Your task to perform on an android device: open app "DoorDash - Dasher" Image 0: 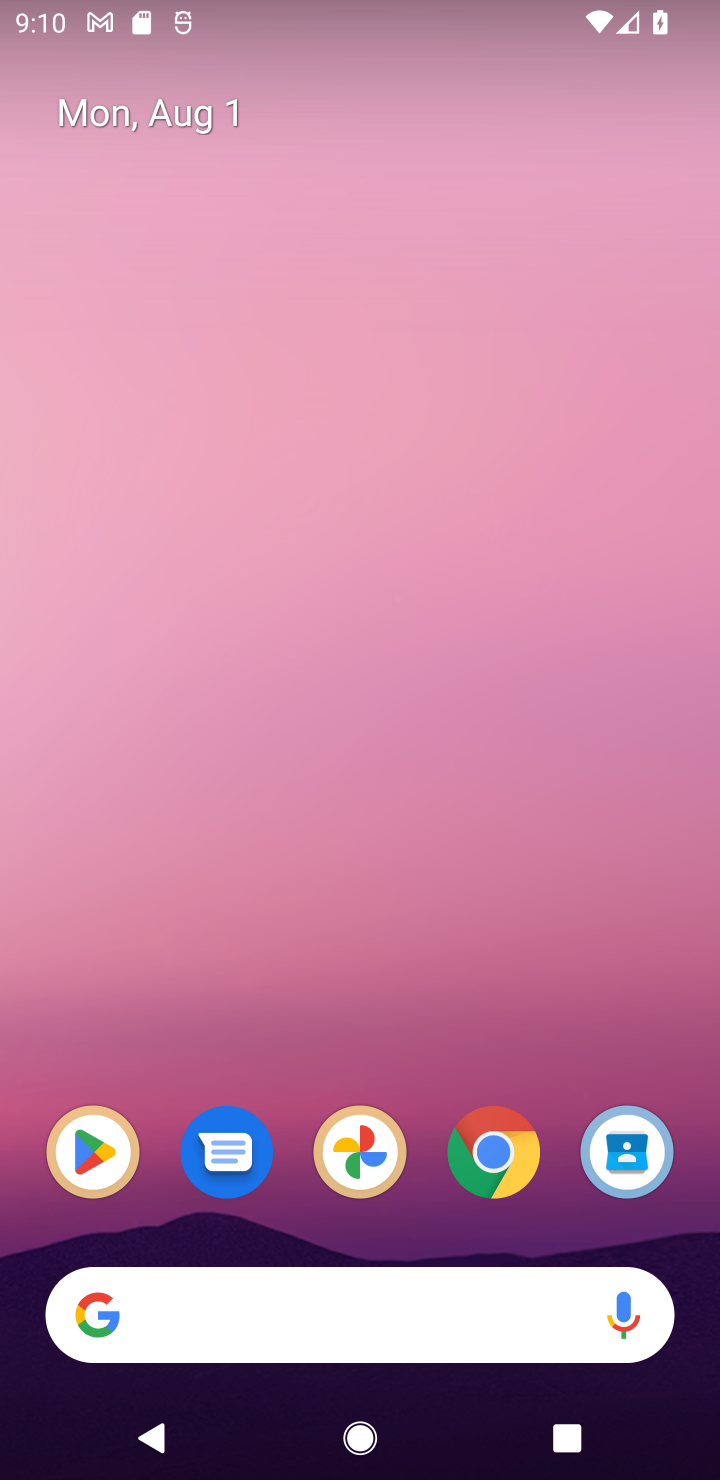
Step 0: drag from (357, 1248) to (350, 0)
Your task to perform on an android device: open app "DoorDash - Dasher" Image 1: 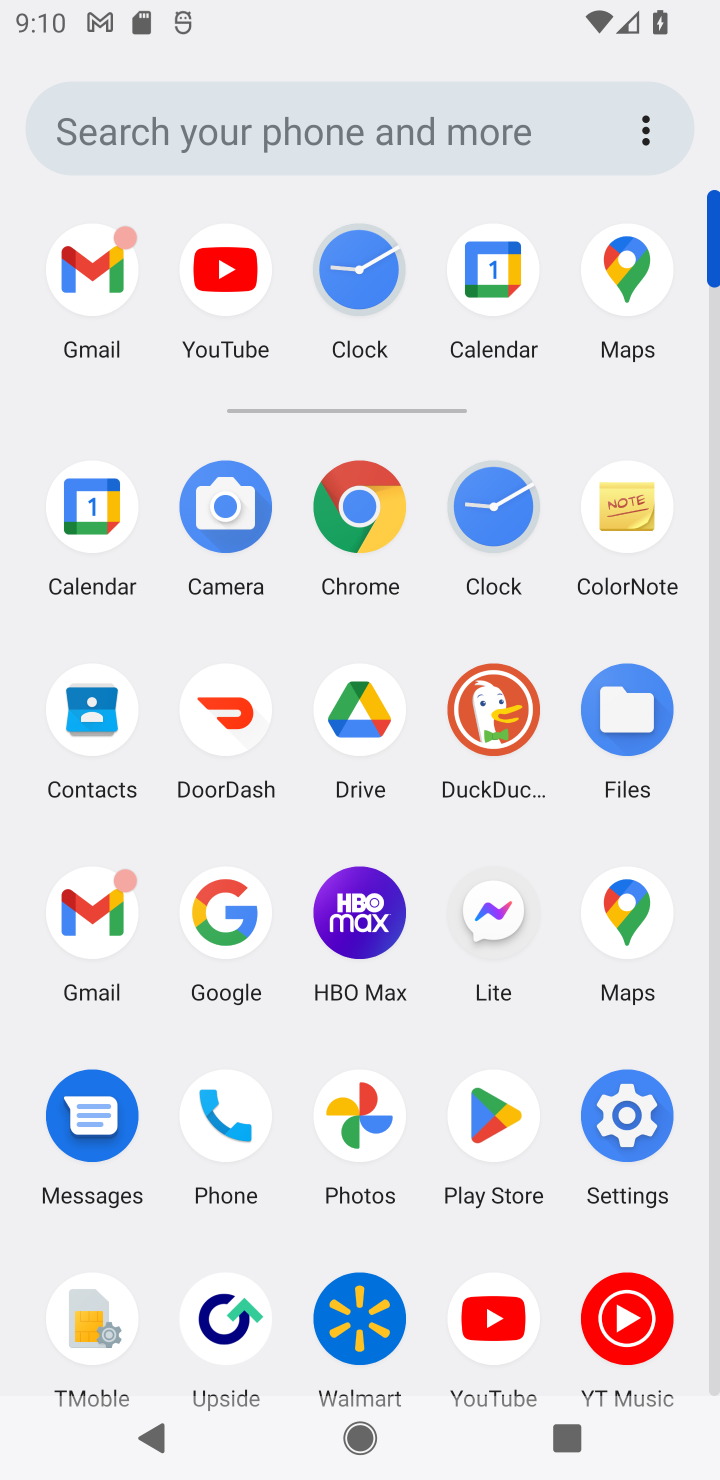
Step 1: click (520, 1094)
Your task to perform on an android device: open app "DoorDash - Dasher" Image 2: 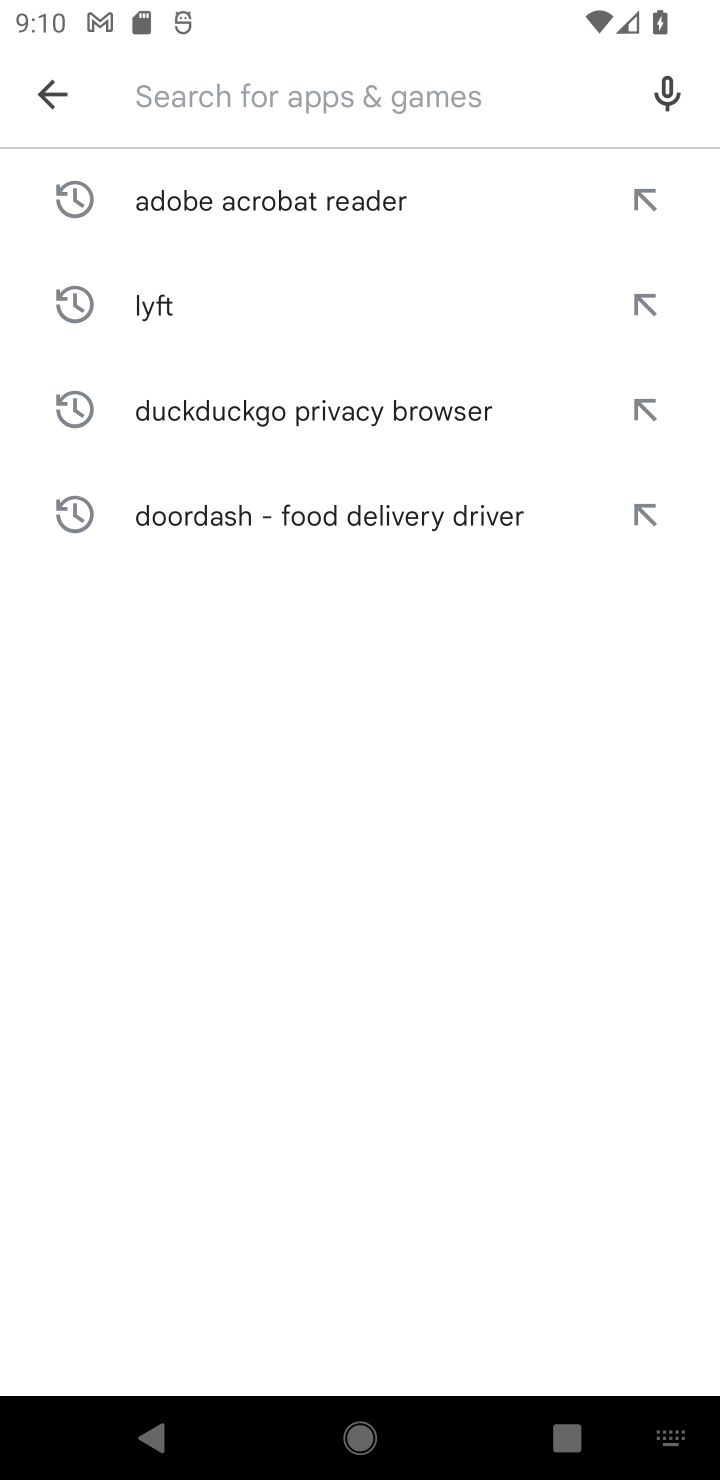
Step 2: click (170, 484)
Your task to perform on an android device: open app "DoorDash - Dasher" Image 3: 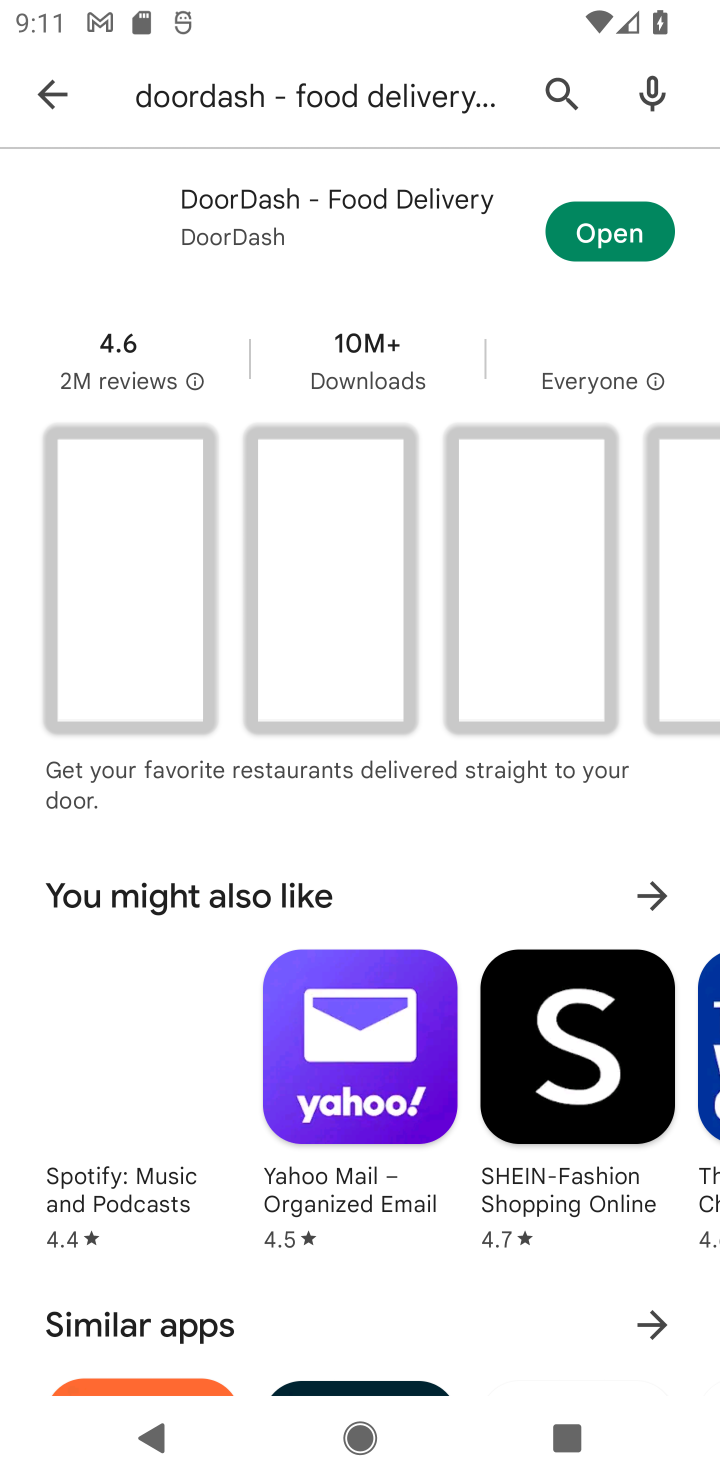
Step 3: click (561, 238)
Your task to perform on an android device: open app "DoorDash - Dasher" Image 4: 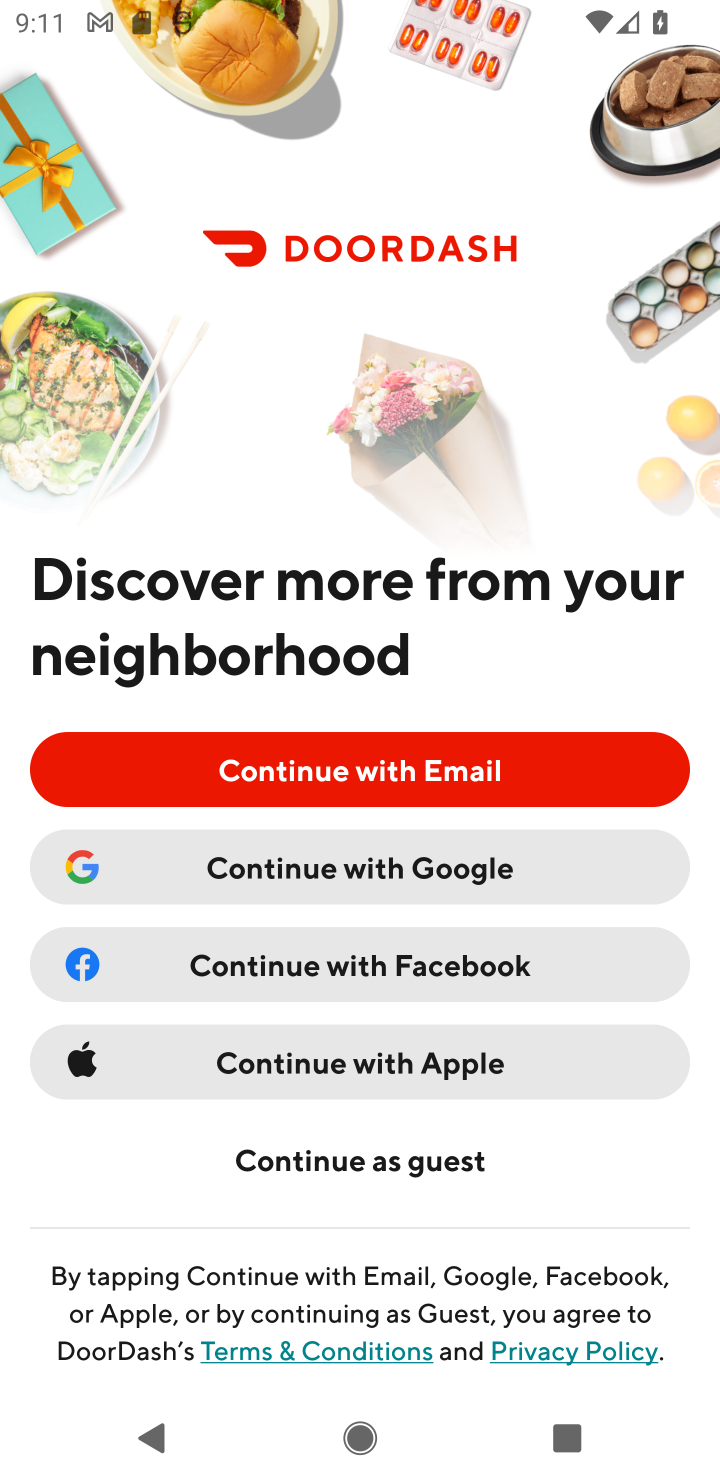
Step 4: task complete